Your task to perform on an android device: Open Yahoo.com Image 0: 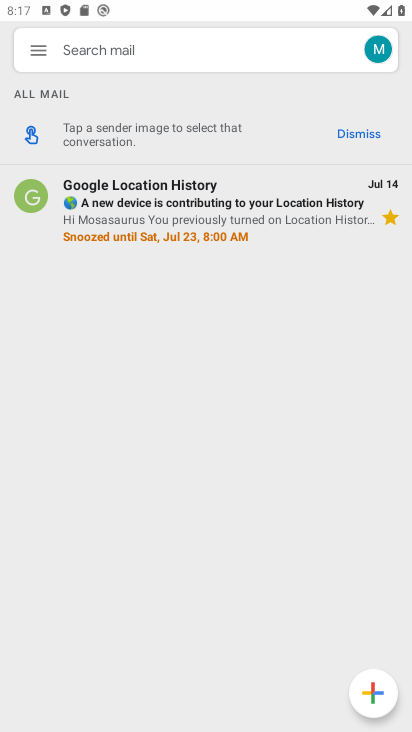
Step 0: press home button
Your task to perform on an android device: Open Yahoo.com Image 1: 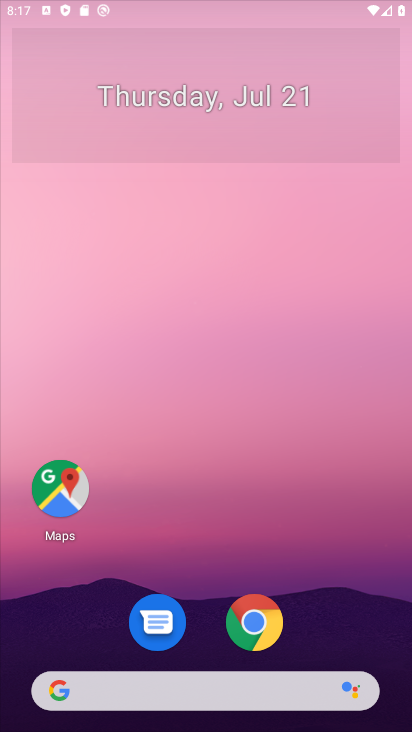
Step 1: click (190, 677)
Your task to perform on an android device: Open Yahoo.com Image 2: 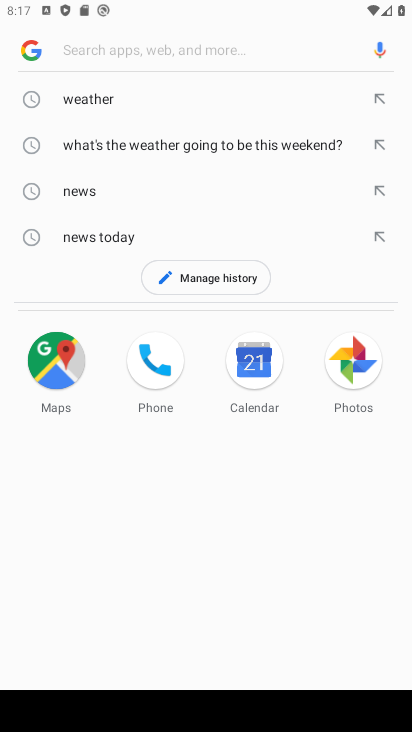
Step 2: type "yahoo.com"
Your task to perform on an android device: Open Yahoo.com Image 3: 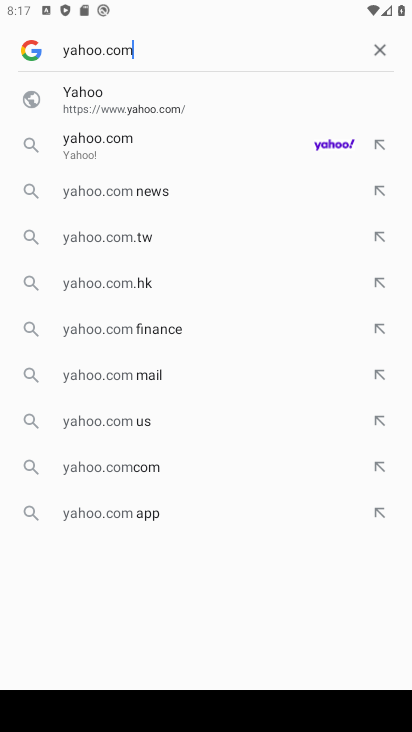
Step 3: click (136, 148)
Your task to perform on an android device: Open Yahoo.com Image 4: 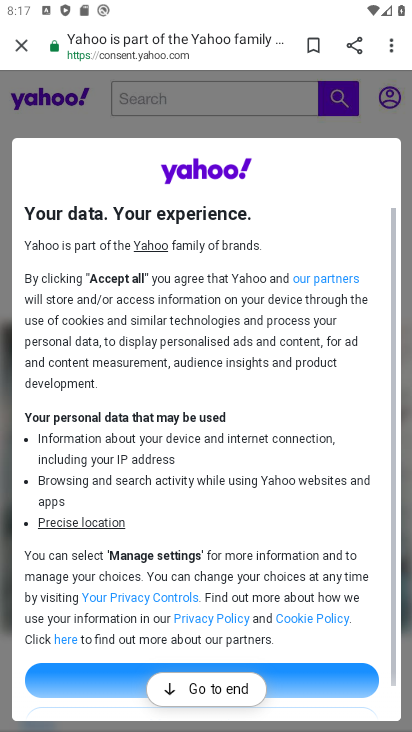
Step 4: task complete